Your task to perform on an android device: check storage Image 0: 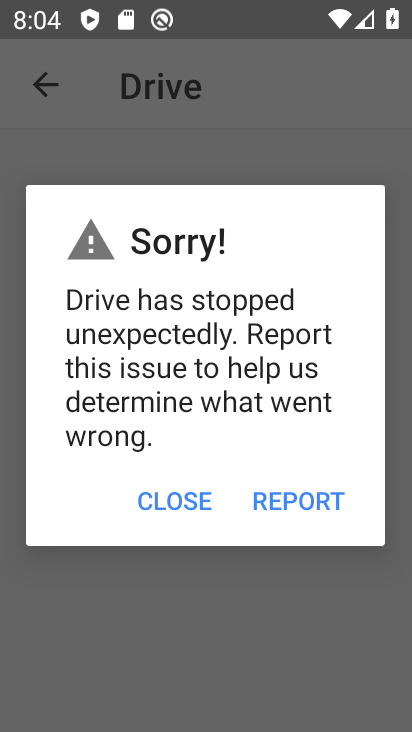
Step 0: press back button
Your task to perform on an android device: check storage Image 1: 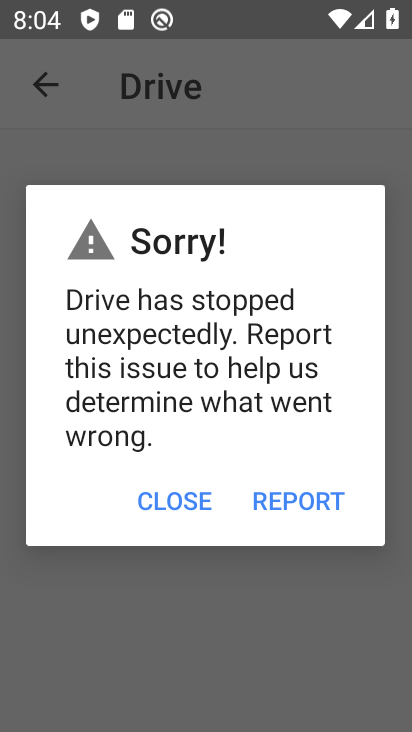
Step 1: press back button
Your task to perform on an android device: check storage Image 2: 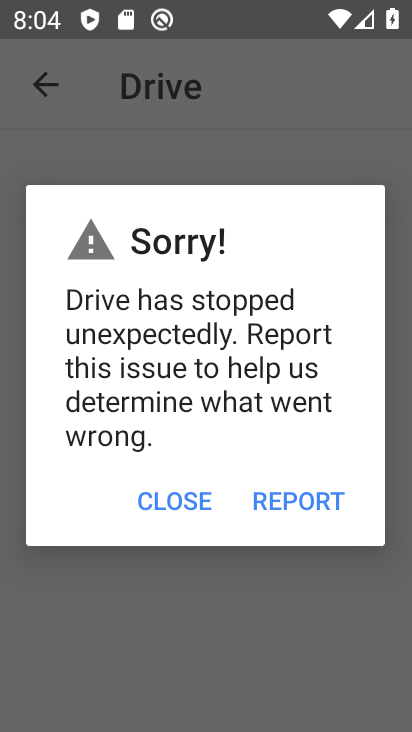
Step 2: press home button
Your task to perform on an android device: check storage Image 3: 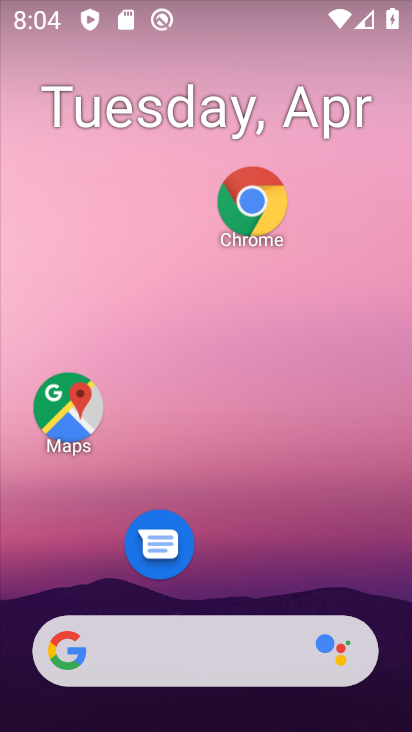
Step 3: drag from (217, 521) to (297, 80)
Your task to perform on an android device: check storage Image 4: 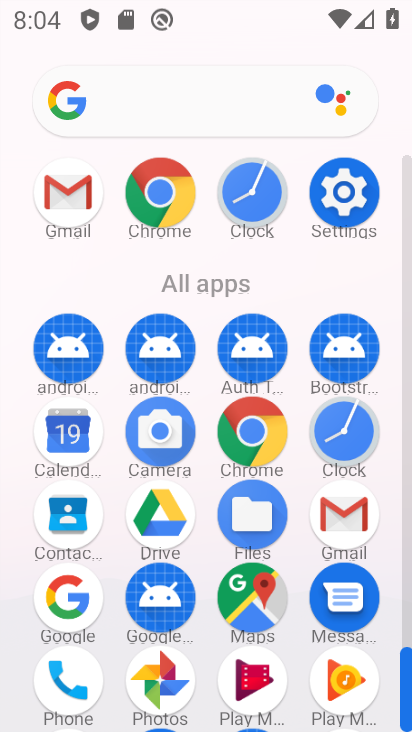
Step 4: click (346, 207)
Your task to perform on an android device: check storage Image 5: 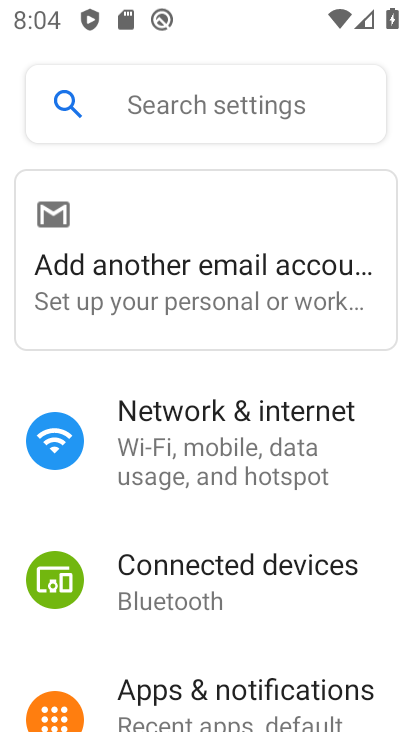
Step 5: drag from (169, 710) to (185, 122)
Your task to perform on an android device: check storage Image 6: 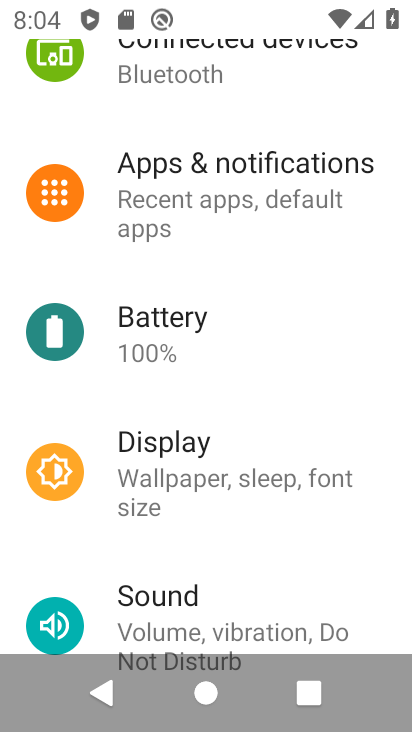
Step 6: drag from (186, 591) to (276, 92)
Your task to perform on an android device: check storage Image 7: 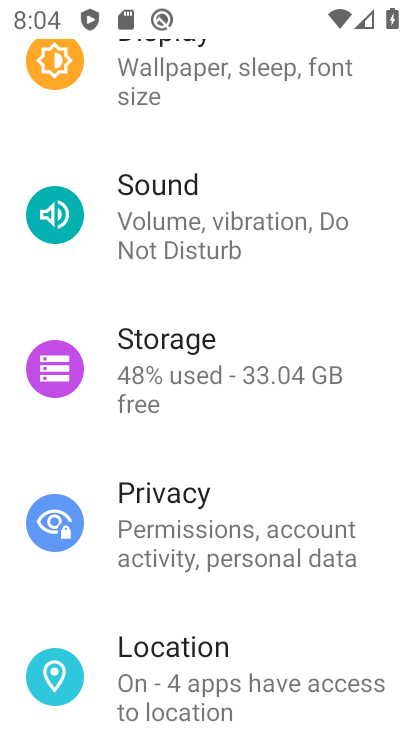
Step 7: click (165, 374)
Your task to perform on an android device: check storage Image 8: 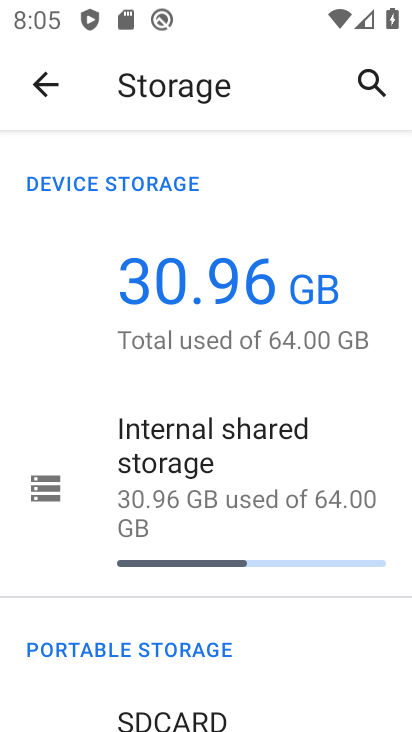
Step 8: task complete